Your task to perform on an android device: Open eBay Image 0: 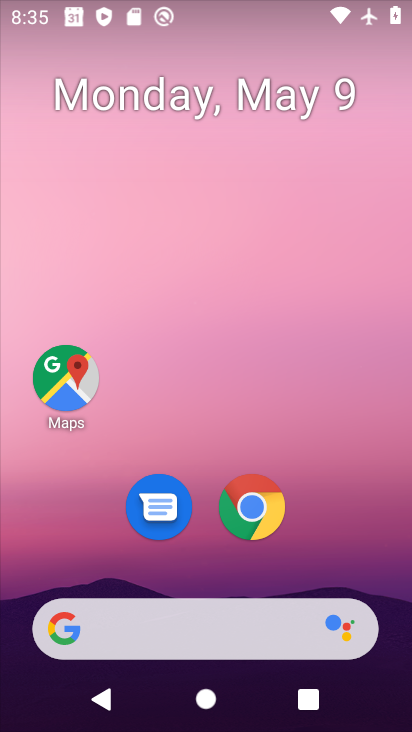
Step 0: drag from (187, 579) to (201, 56)
Your task to perform on an android device: Open eBay Image 1: 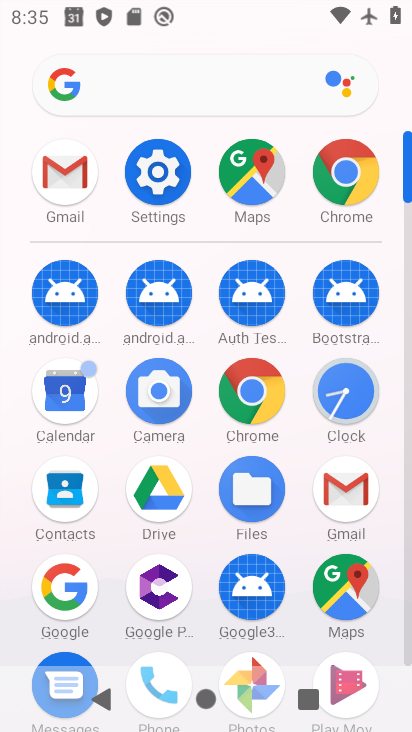
Step 1: click (262, 418)
Your task to perform on an android device: Open eBay Image 2: 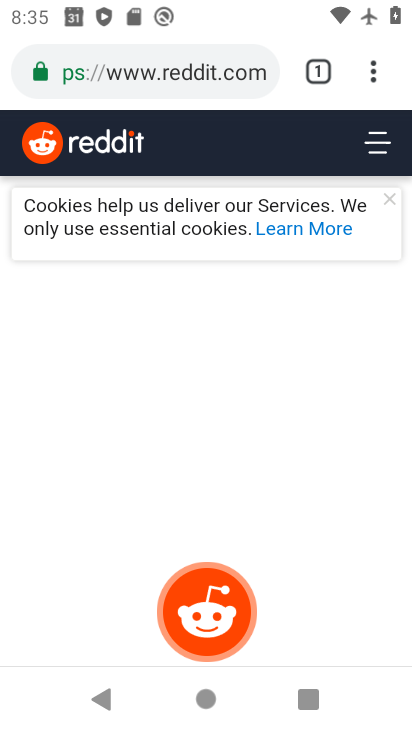
Step 2: click (310, 63)
Your task to perform on an android device: Open eBay Image 3: 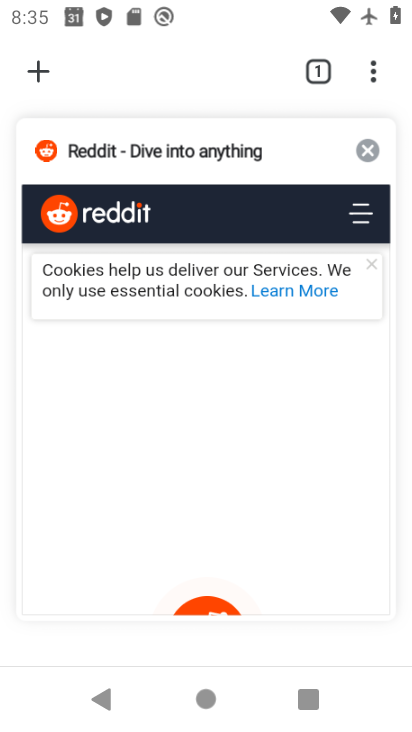
Step 3: click (54, 73)
Your task to perform on an android device: Open eBay Image 4: 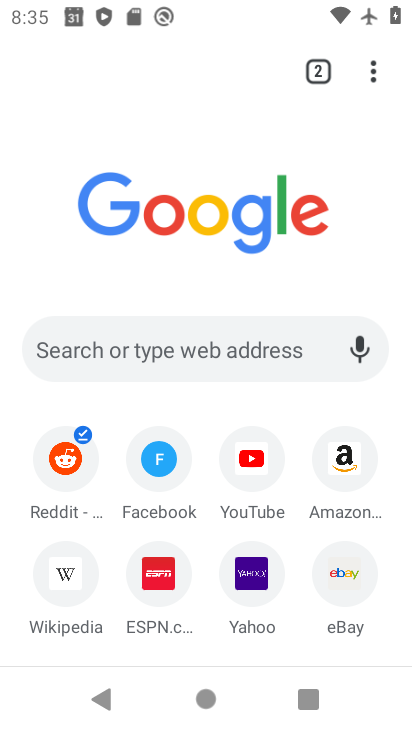
Step 4: click (327, 583)
Your task to perform on an android device: Open eBay Image 5: 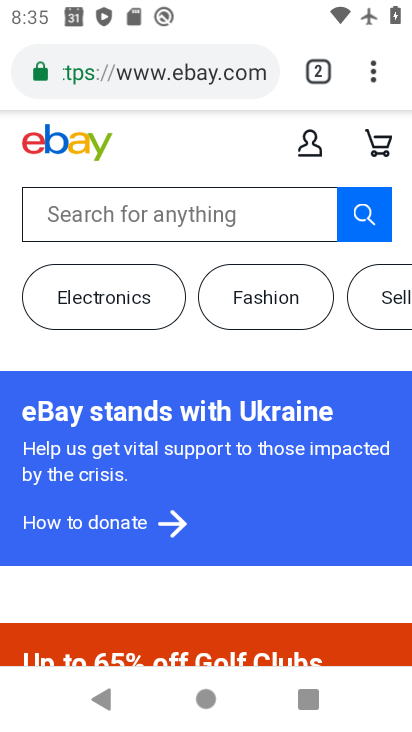
Step 5: task complete